Your task to perform on an android device: Open wifi settings Image 0: 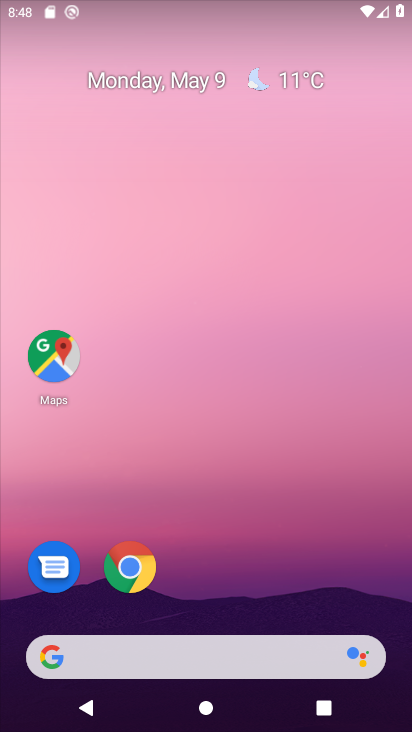
Step 0: drag from (314, 483) to (291, 20)
Your task to perform on an android device: Open wifi settings Image 1: 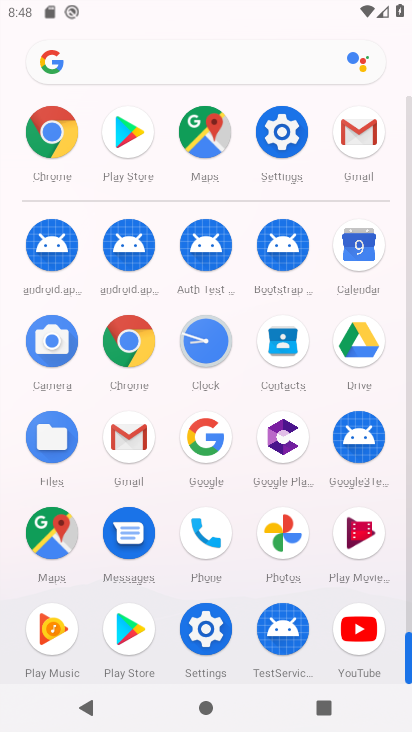
Step 1: click (283, 115)
Your task to perform on an android device: Open wifi settings Image 2: 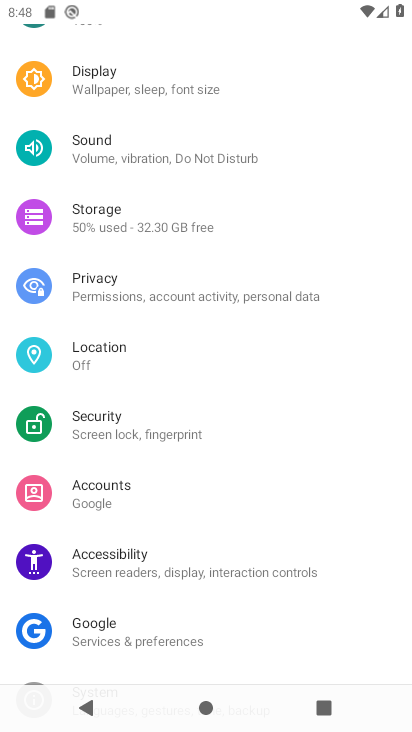
Step 2: drag from (252, 156) to (276, 505)
Your task to perform on an android device: Open wifi settings Image 3: 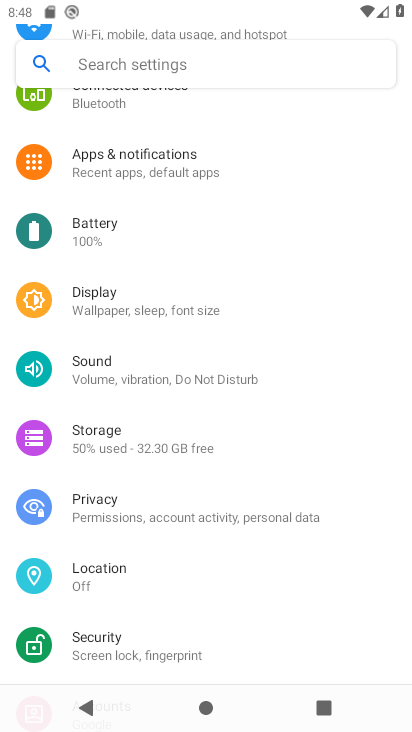
Step 3: drag from (199, 160) to (205, 377)
Your task to perform on an android device: Open wifi settings Image 4: 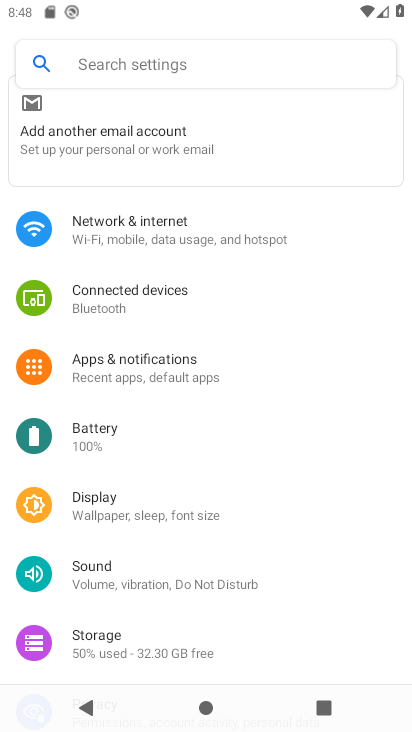
Step 4: click (200, 234)
Your task to perform on an android device: Open wifi settings Image 5: 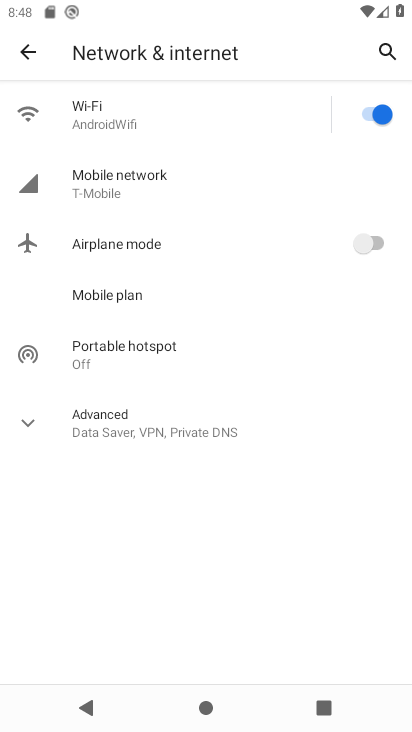
Step 5: click (151, 103)
Your task to perform on an android device: Open wifi settings Image 6: 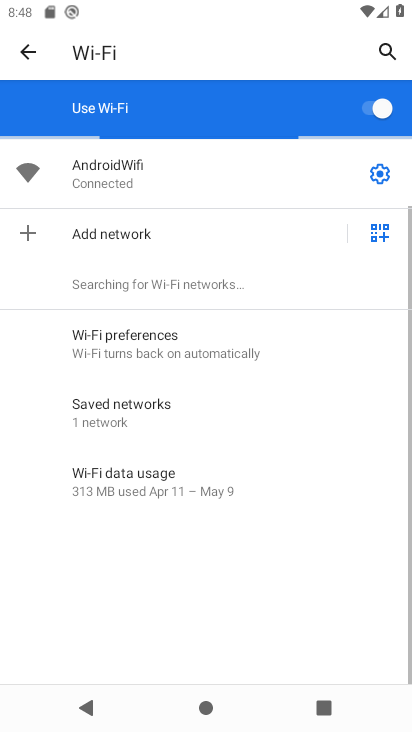
Step 6: task complete